Your task to perform on an android device: read, delete, or share a saved page in the chrome app Image 0: 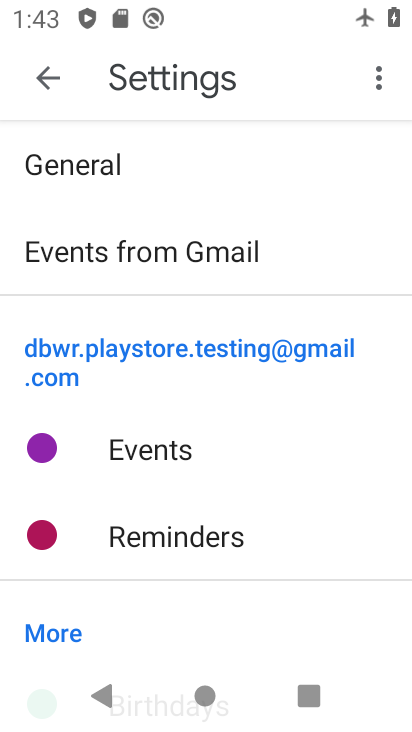
Step 0: press home button
Your task to perform on an android device: read, delete, or share a saved page in the chrome app Image 1: 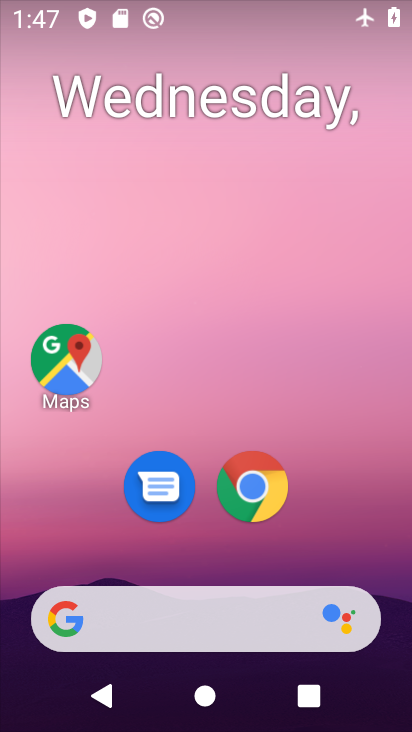
Step 1: click (220, 321)
Your task to perform on an android device: read, delete, or share a saved page in the chrome app Image 2: 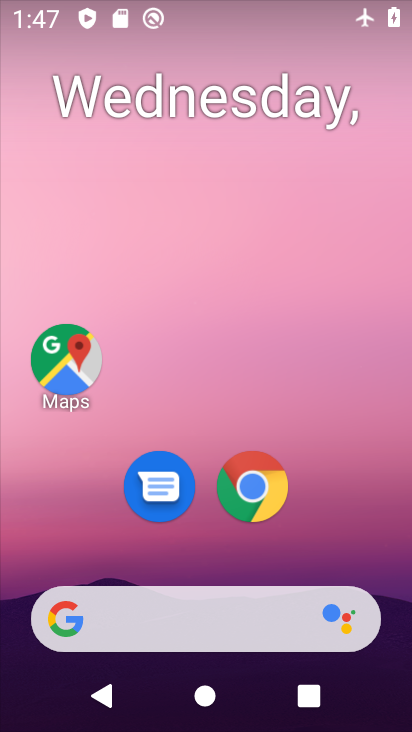
Step 2: drag from (154, 675) to (168, 119)
Your task to perform on an android device: read, delete, or share a saved page in the chrome app Image 3: 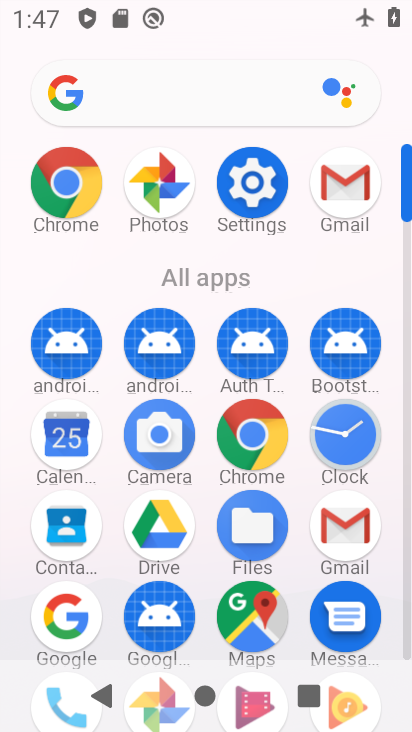
Step 3: click (82, 189)
Your task to perform on an android device: read, delete, or share a saved page in the chrome app Image 4: 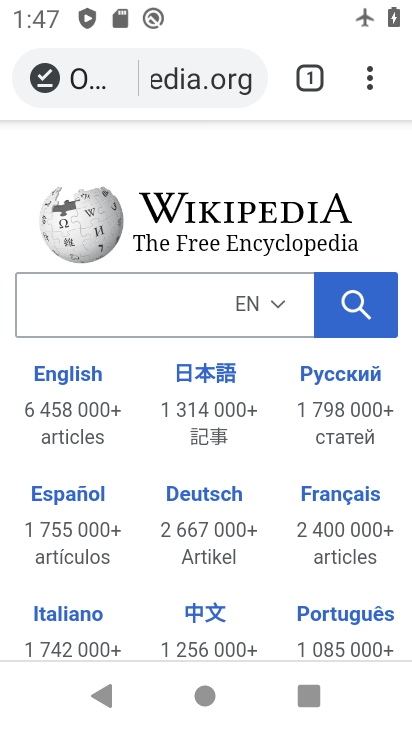
Step 4: click (380, 77)
Your task to perform on an android device: read, delete, or share a saved page in the chrome app Image 5: 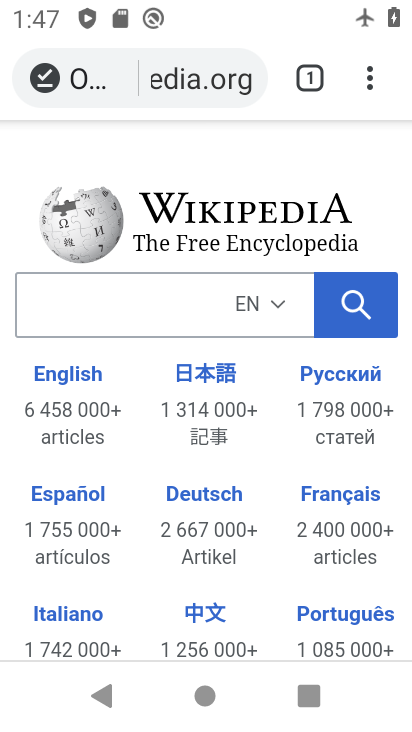
Step 5: click (372, 77)
Your task to perform on an android device: read, delete, or share a saved page in the chrome app Image 6: 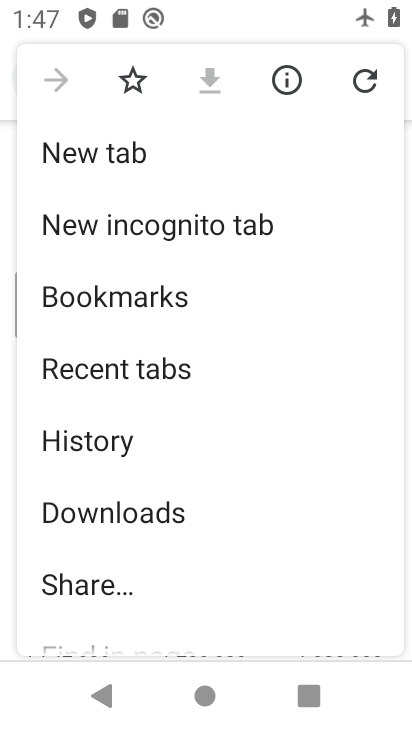
Step 6: click (205, 514)
Your task to perform on an android device: read, delete, or share a saved page in the chrome app Image 7: 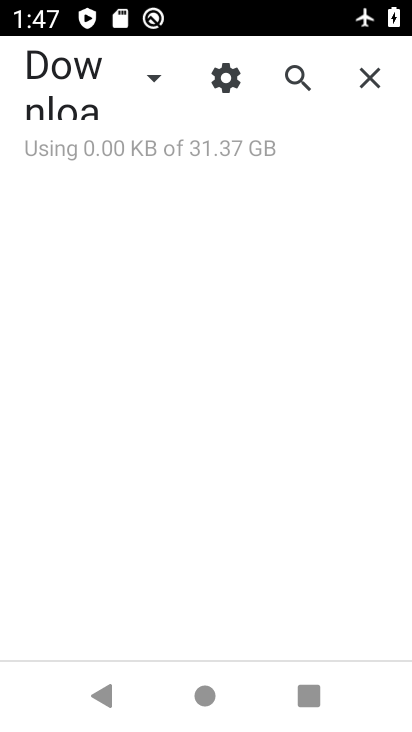
Step 7: task complete